Your task to perform on an android device: Set the phone to "Do not disturb". Image 0: 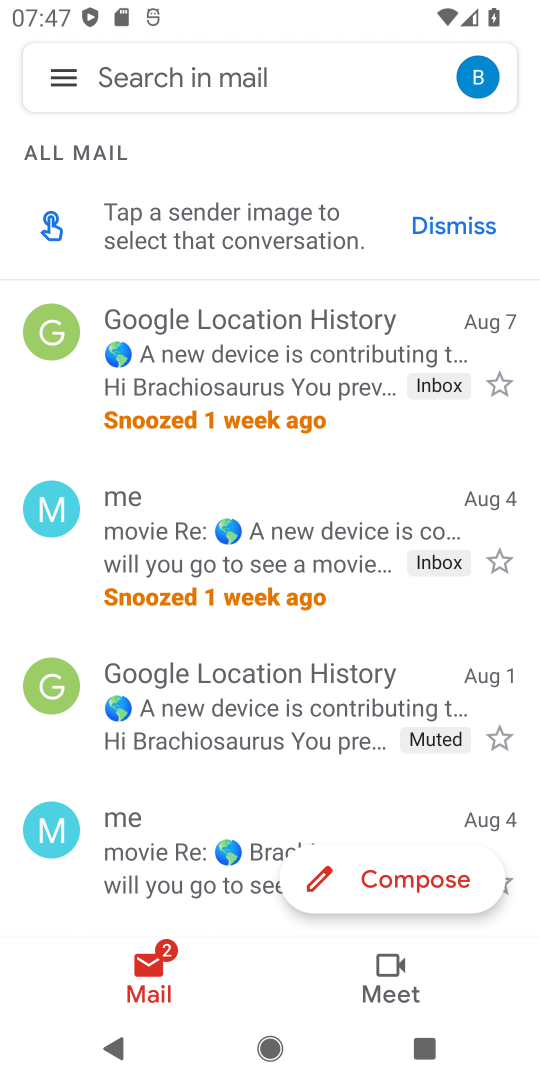
Step 0: press home button
Your task to perform on an android device: Set the phone to "Do not disturb". Image 1: 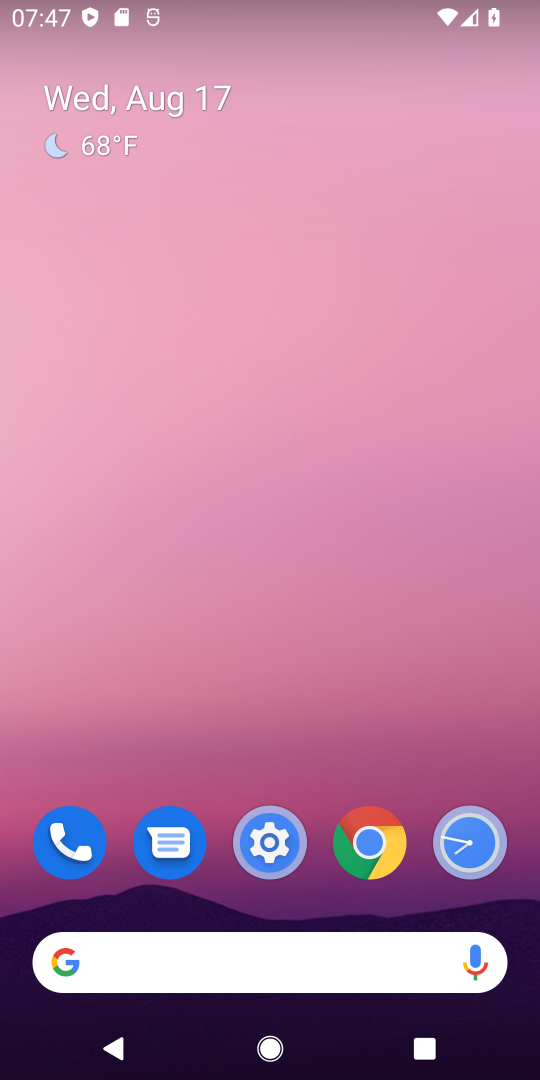
Step 1: click (270, 844)
Your task to perform on an android device: Set the phone to "Do not disturb". Image 2: 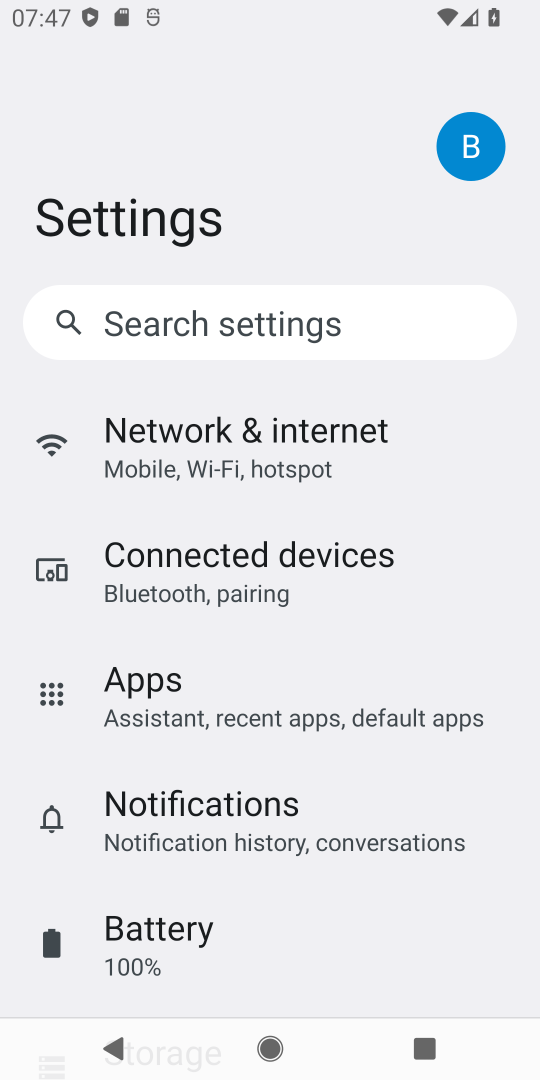
Step 2: drag from (301, 911) to (315, 195)
Your task to perform on an android device: Set the phone to "Do not disturb". Image 3: 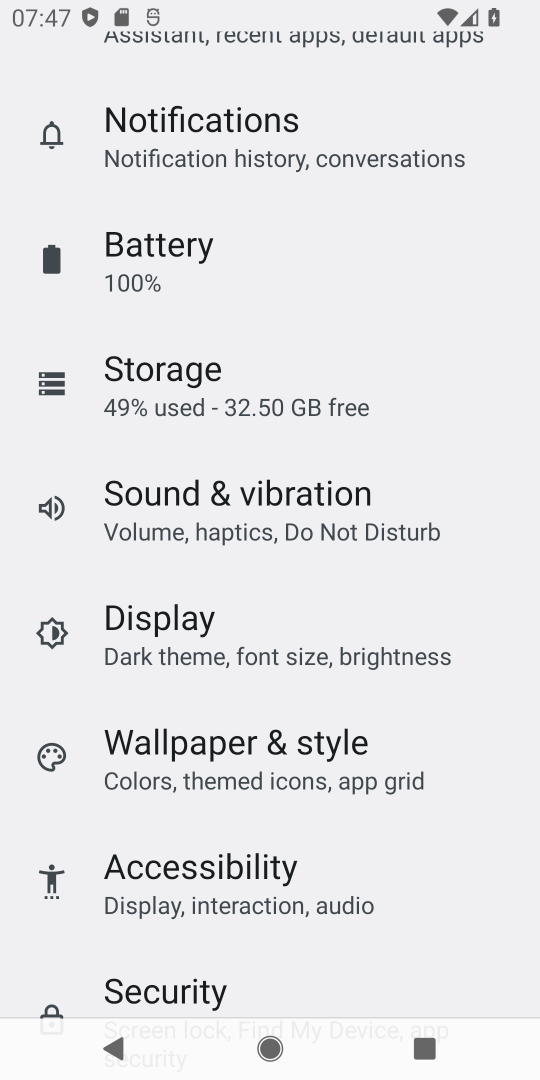
Step 3: click (314, 495)
Your task to perform on an android device: Set the phone to "Do not disturb". Image 4: 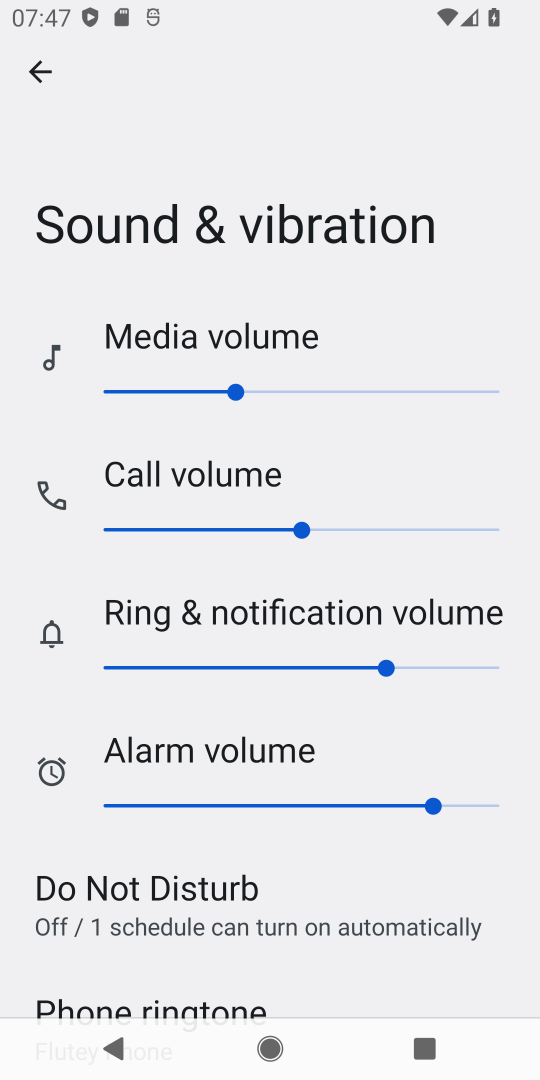
Step 4: drag from (308, 840) to (299, 323)
Your task to perform on an android device: Set the phone to "Do not disturb". Image 5: 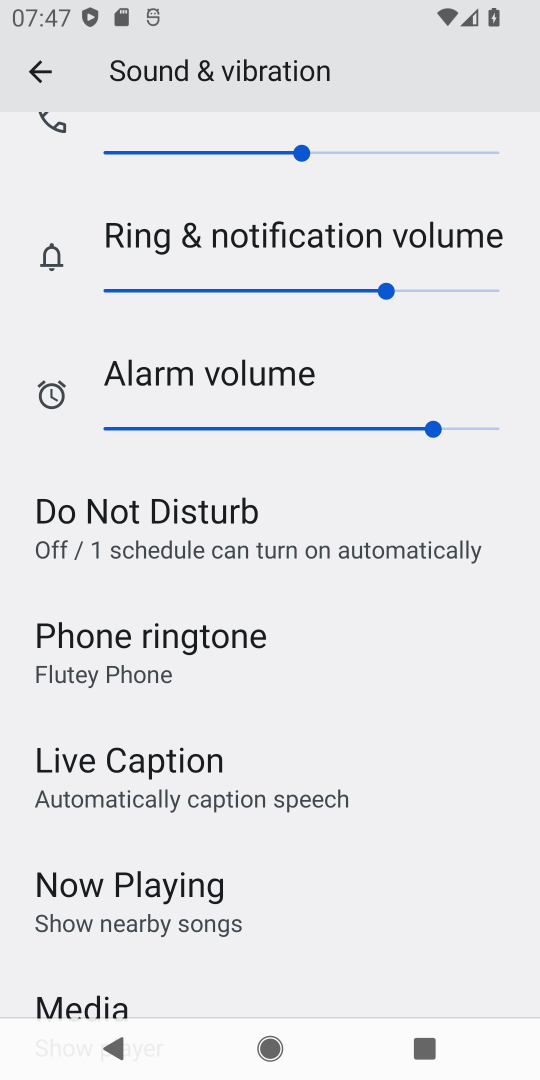
Step 5: click (315, 520)
Your task to perform on an android device: Set the phone to "Do not disturb". Image 6: 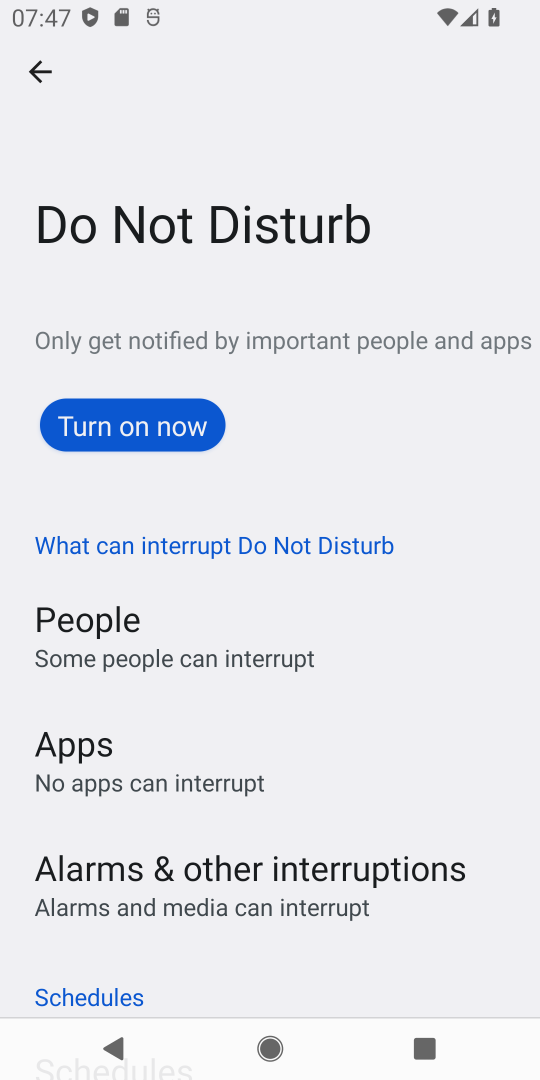
Step 6: click (183, 432)
Your task to perform on an android device: Set the phone to "Do not disturb". Image 7: 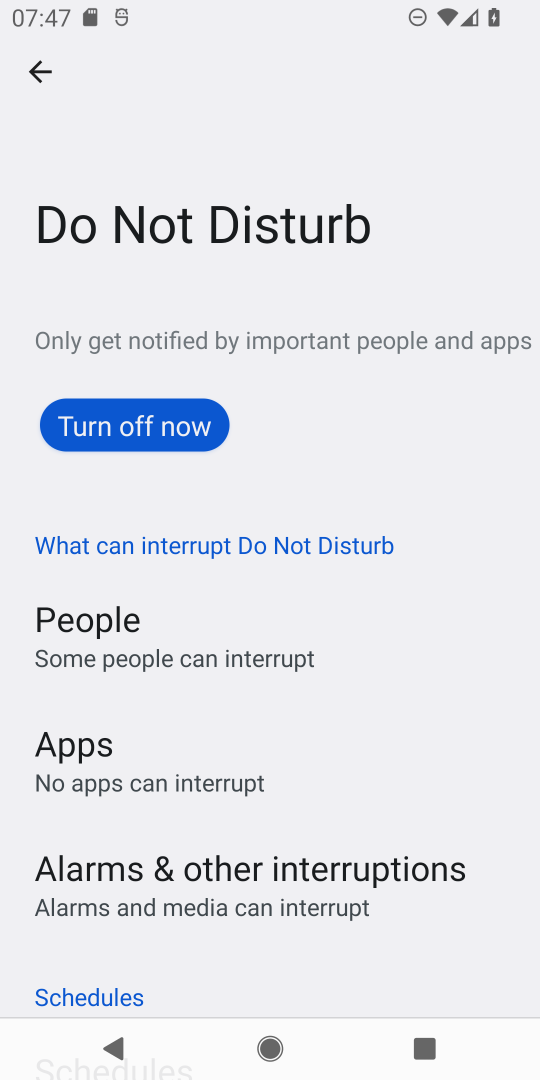
Step 7: task complete